Your task to perform on an android device: allow cookies in the chrome app Image 0: 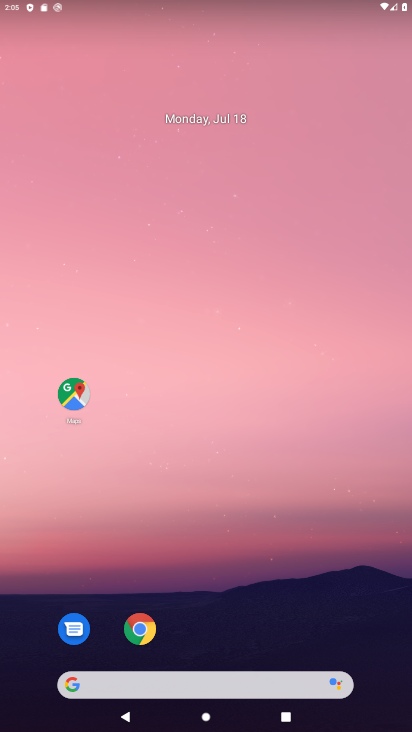
Step 0: click (151, 619)
Your task to perform on an android device: allow cookies in the chrome app Image 1: 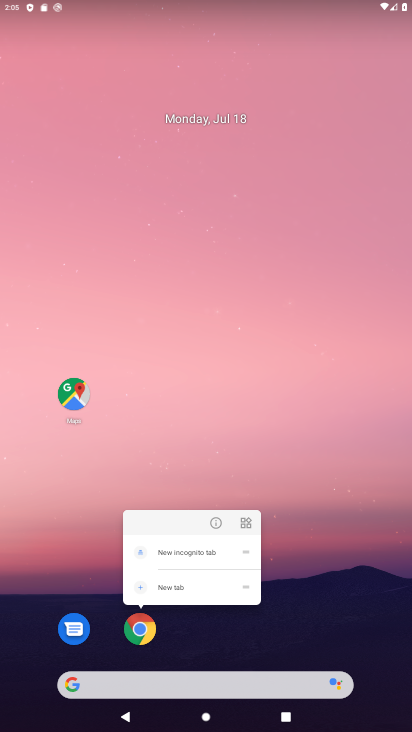
Step 1: click (140, 629)
Your task to perform on an android device: allow cookies in the chrome app Image 2: 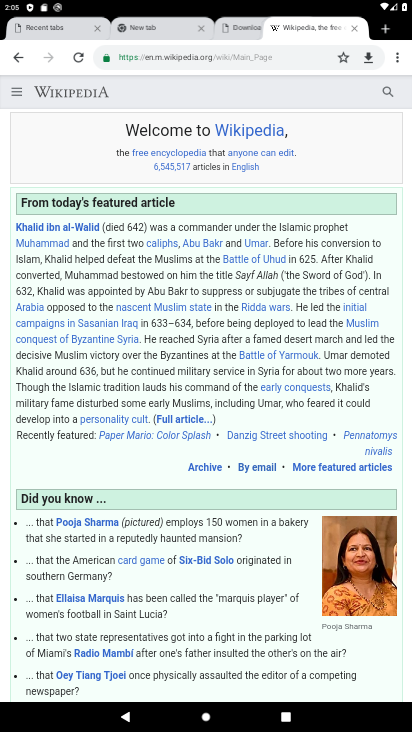
Step 2: click (397, 63)
Your task to perform on an android device: allow cookies in the chrome app Image 3: 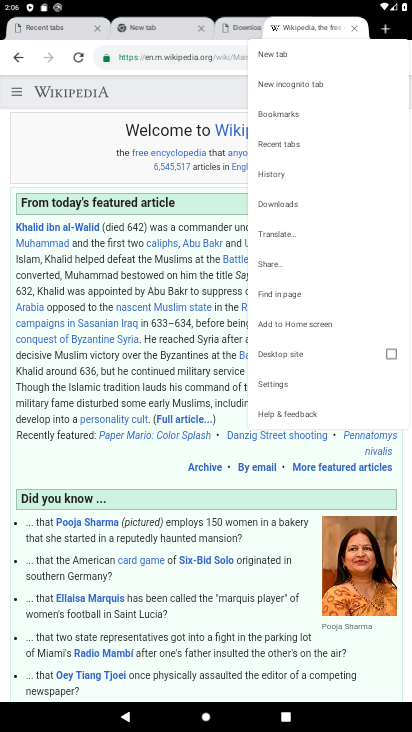
Step 3: click (290, 379)
Your task to perform on an android device: allow cookies in the chrome app Image 4: 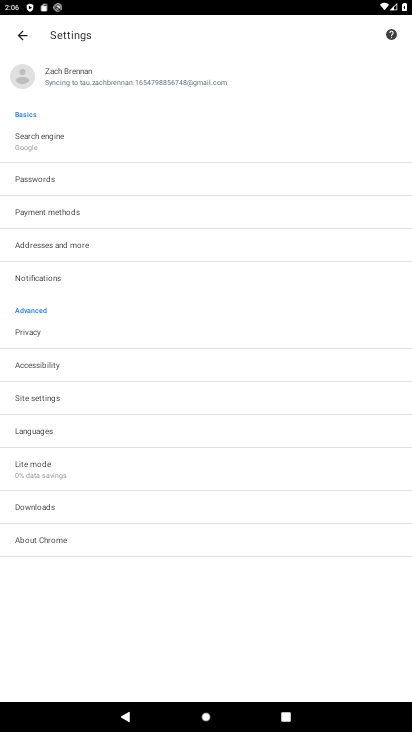
Step 4: click (78, 402)
Your task to perform on an android device: allow cookies in the chrome app Image 5: 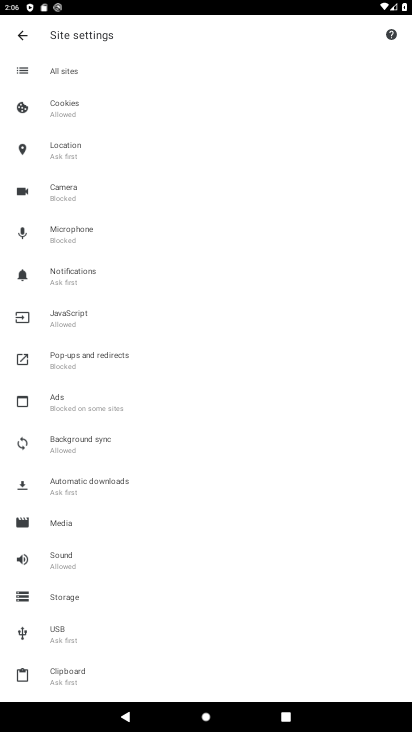
Step 5: click (88, 122)
Your task to perform on an android device: allow cookies in the chrome app Image 6: 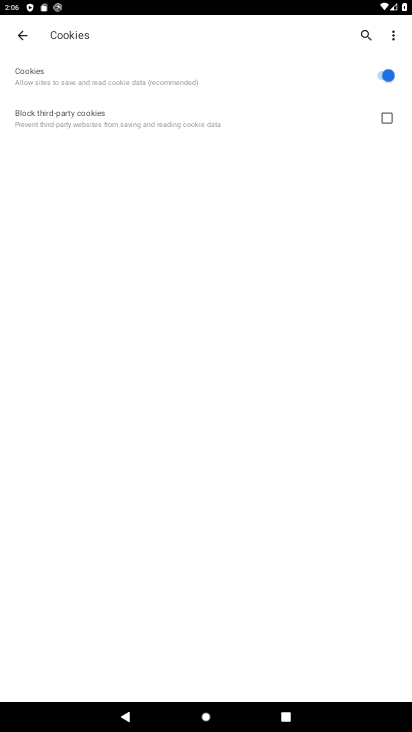
Step 6: task complete